Your task to perform on an android device: Open sound settings Image 0: 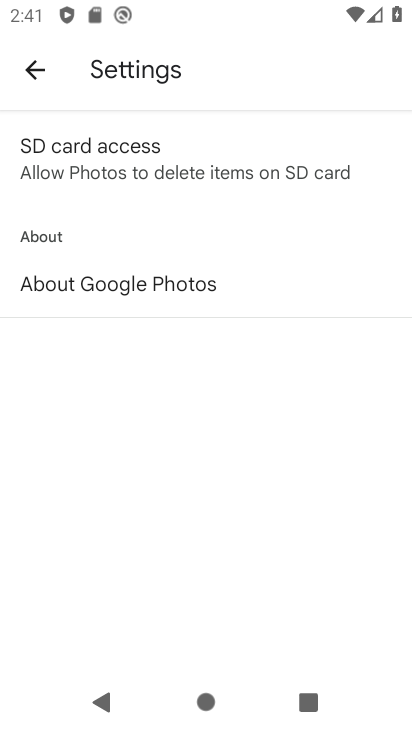
Step 0: press home button
Your task to perform on an android device: Open sound settings Image 1: 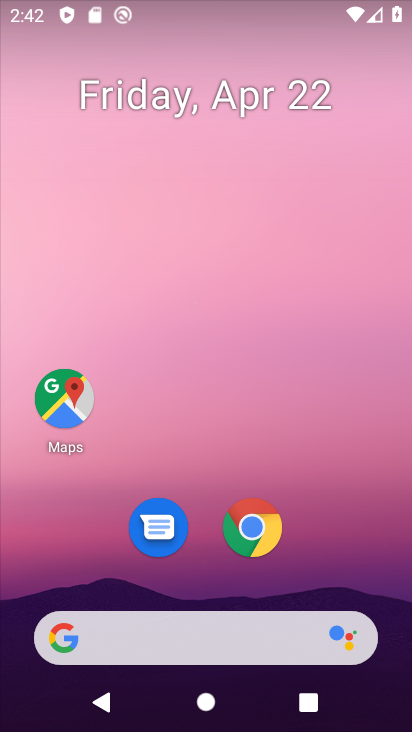
Step 1: drag from (398, 639) to (235, 7)
Your task to perform on an android device: Open sound settings Image 2: 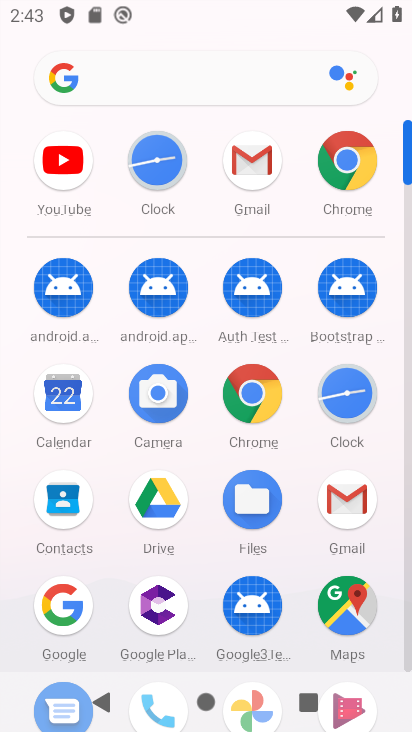
Step 2: click (407, 667)
Your task to perform on an android device: Open sound settings Image 3: 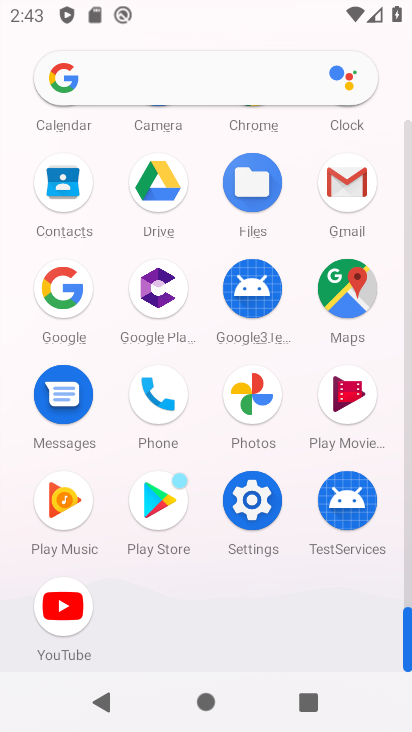
Step 3: click (243, 512)
Your task to perform on an android device: Open sound settings Image 4: 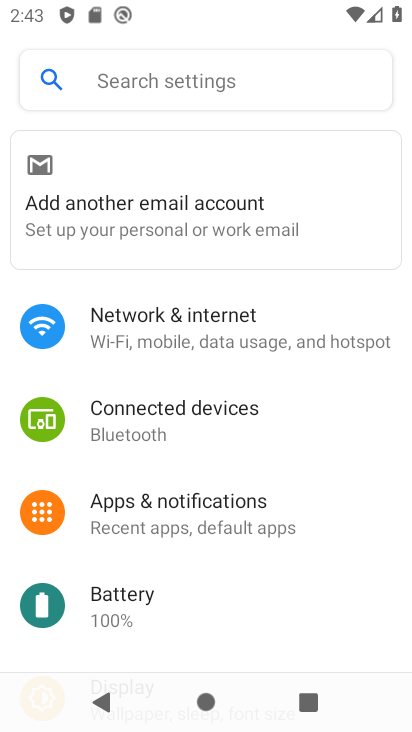
Step 4: drag from (131, 614) to (184, 147)
Your task to perform on an android device: Open sound settings Image 5: 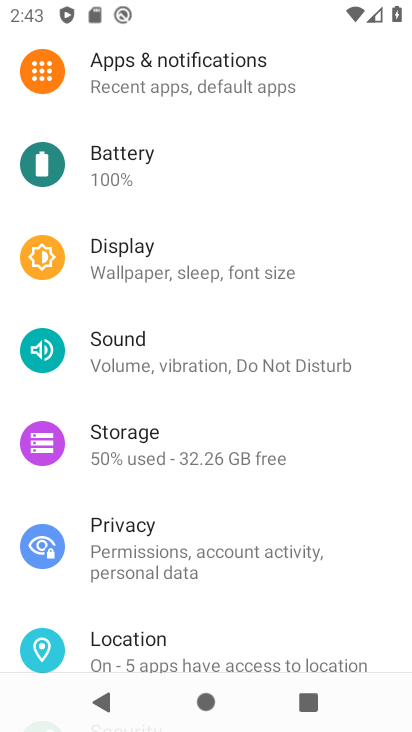
Step 5: click (153, 368)
Your task to perform on an android device: Open sound settings Image 6: 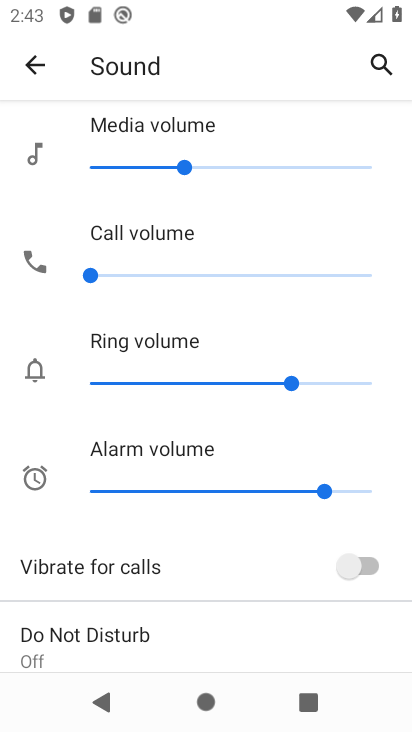
Step 6: task complete